Your task to perform on an android device: open the mobile data screen to see how much data has been used Image 0: 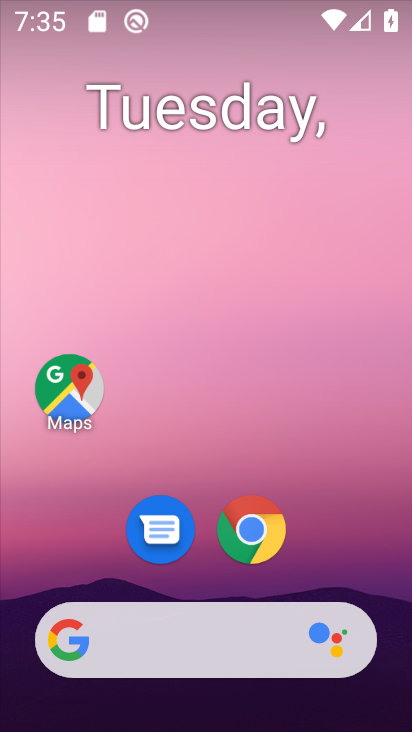
Step 0: drag from (161, 607) to (262, 71)
Your task to perform on an android device: open the mobile data screen to see how much data has been used Image 1: 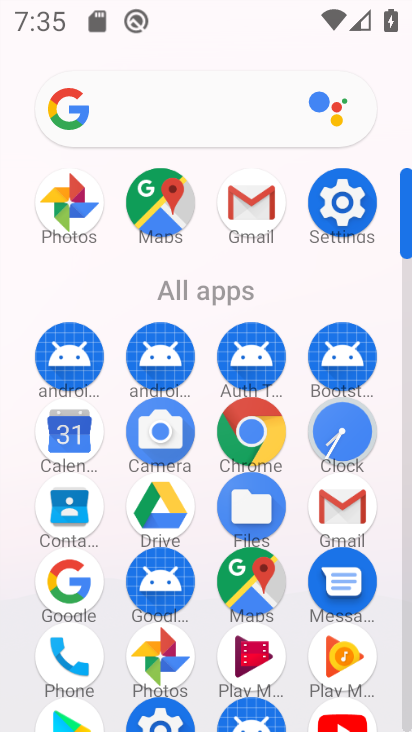
Step 1: click (325, 189)
Your task to perform on an android device: open the mobile data screen to see how much data has been used Image 2: 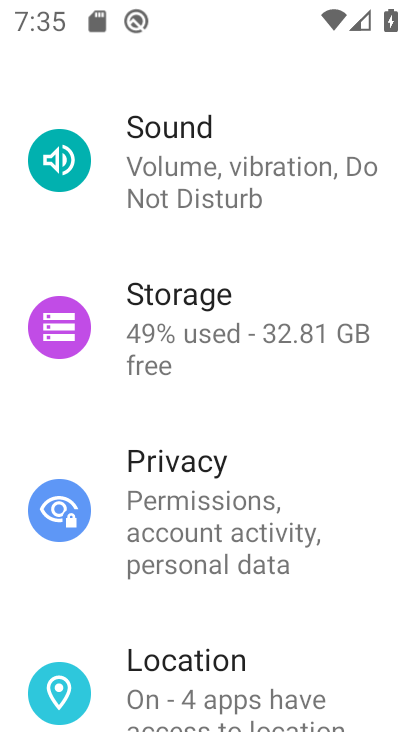
Step 2: drag from (309, 198) to (254, 647)
Your task to perform on an android device: open the mobile data screen to see how much data has been used Image 3: 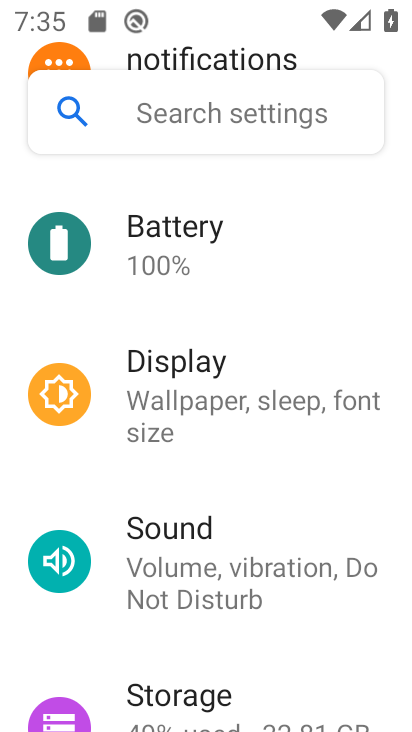
Step 3: drag from (228, 240) to (165, 718)
Your task to perform on an android device: open the mobile data screen to see how much data has been used Image 4: 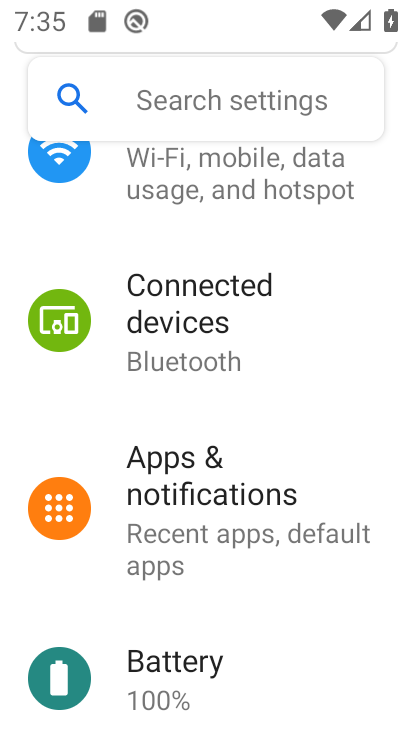
Step 4: drag from (196, 314) to (196, 677)
Your task to perform on an android device: open the mobile data screen to see how much data has been used Image 5: 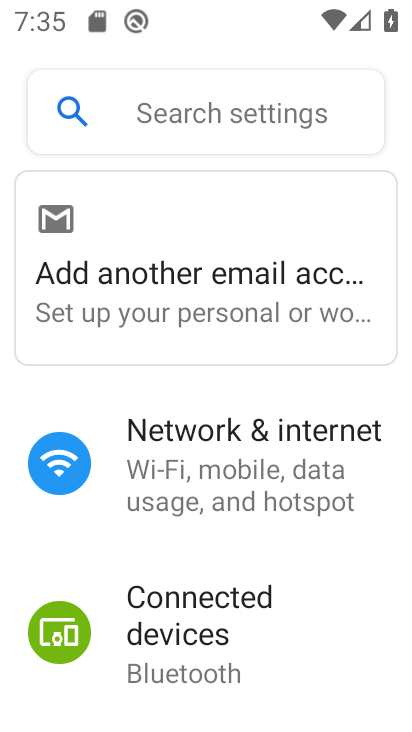
Step 5: click (212, 462)
Your task to perform on an android device: open the mobile data screen to see how much data has been used Image 6: 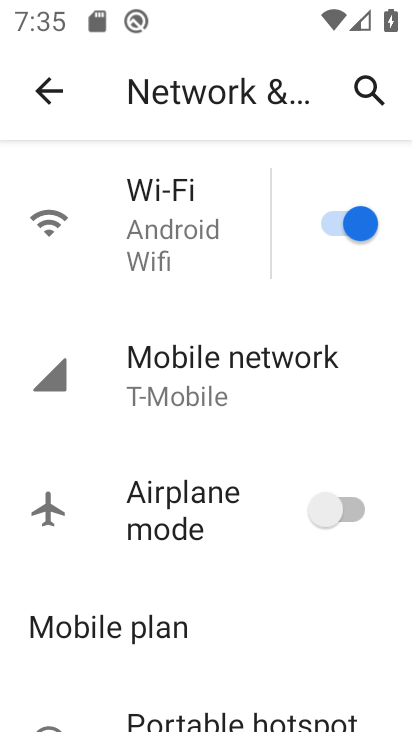
Step 6: click (206, 374)
Your task to perform on an android device: open the mobile data screen to see how much data has been used Image 7: 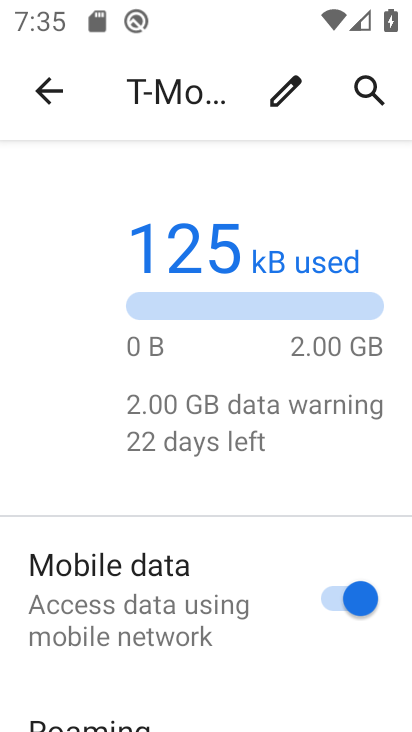
Step 7: drag from (186, 654) to (275, 135)
Your task to perform on an android device: open the mobile data screen to see how much data has been used Image 8: 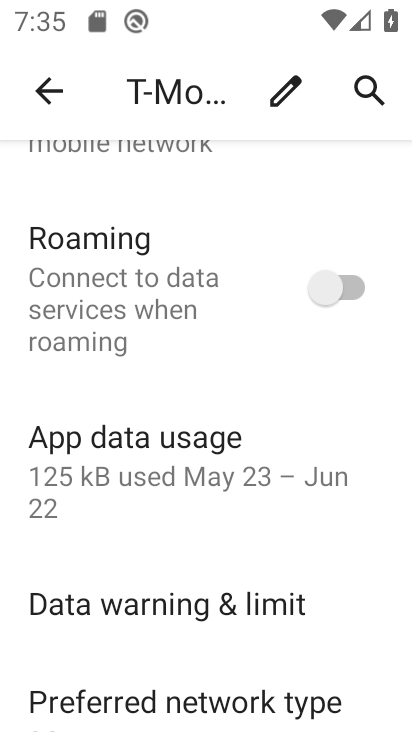
Step 8: click (171, 439)
Your task to perform on an android device: open the mobile data screen to see how much data has been used Image 9: 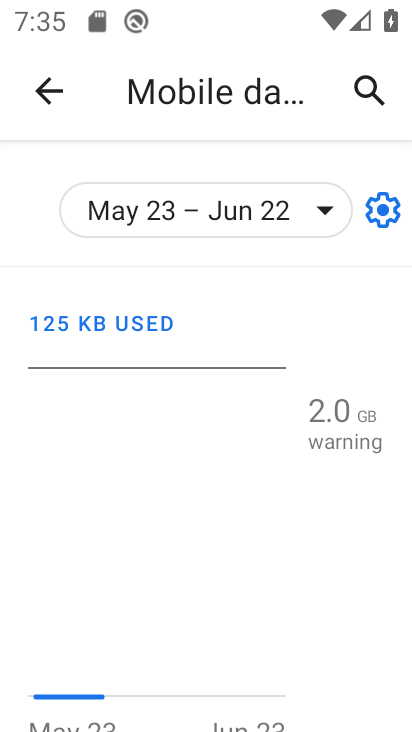
Step 9: task complete